Your task to perform on an android device: make emails show in primary in the gmail app Image 0: 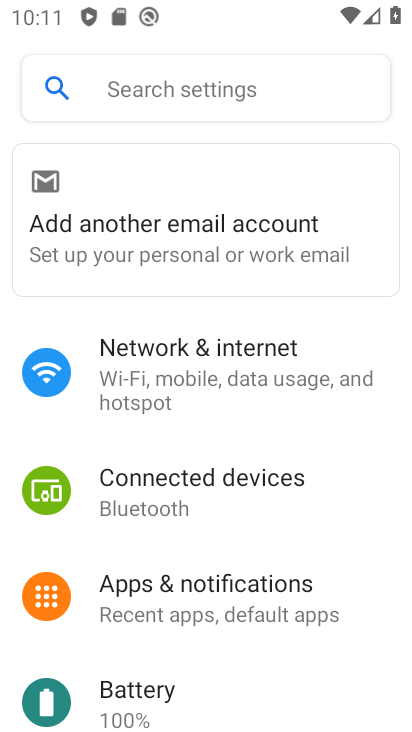
Step 0: task complete